Your task to perform on an android device: See recent photos Image 0: 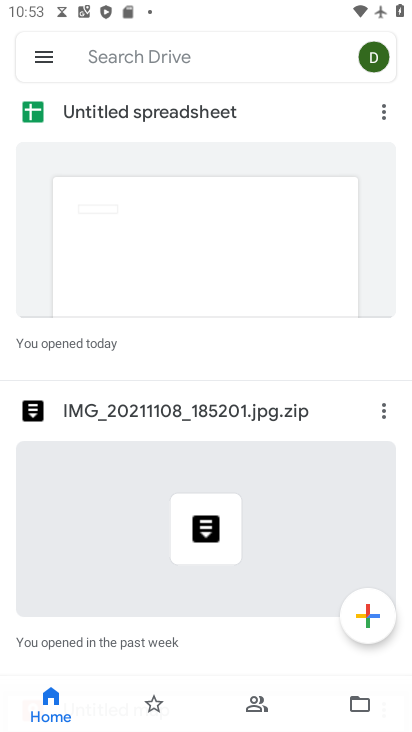
Step 0: press back button
Your task to perform on an android device: See recent photos Image 1: 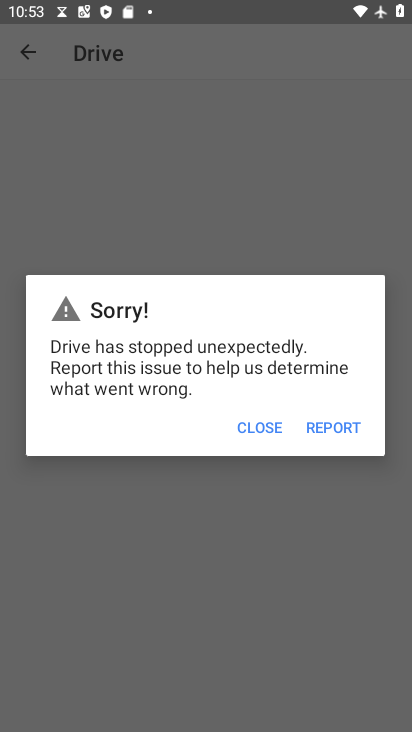
Step 1: press home button
Your task to perform on an android device: See recent photos Image 2: 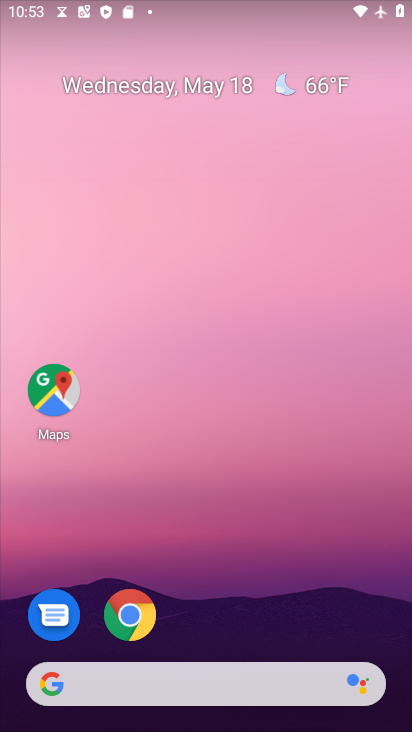
Step 2: drag from (249, 561) to (185, 41)
Your task to perform on an android device: See recent photos Image 3: 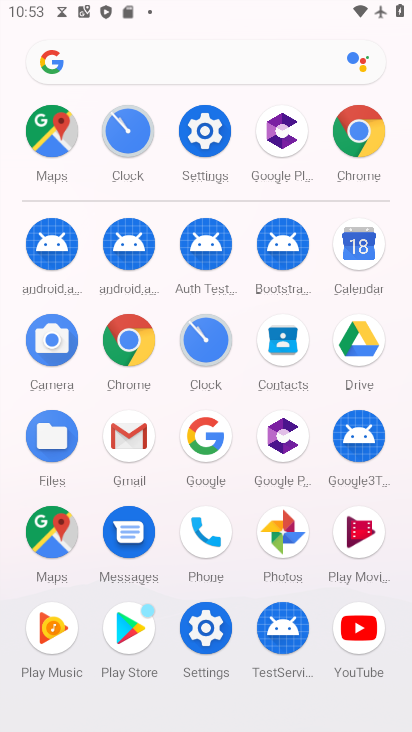
Step 3: click (283, 529)
Your task to perform on an android device: See recent photos Image 4: 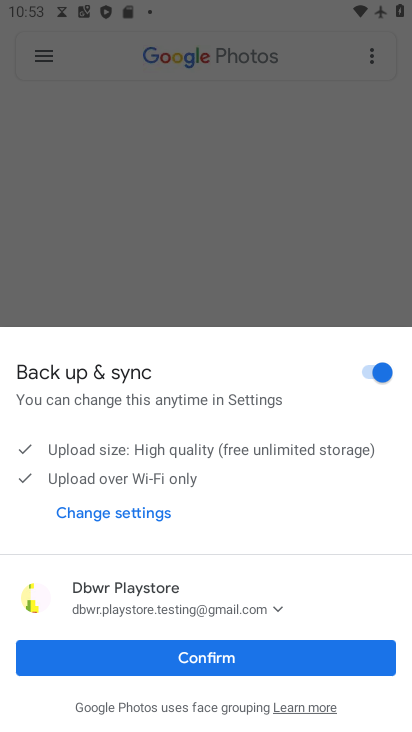
Step 4: click (236, 666)
Your task to perform on an android device: See recent photos Image 5: 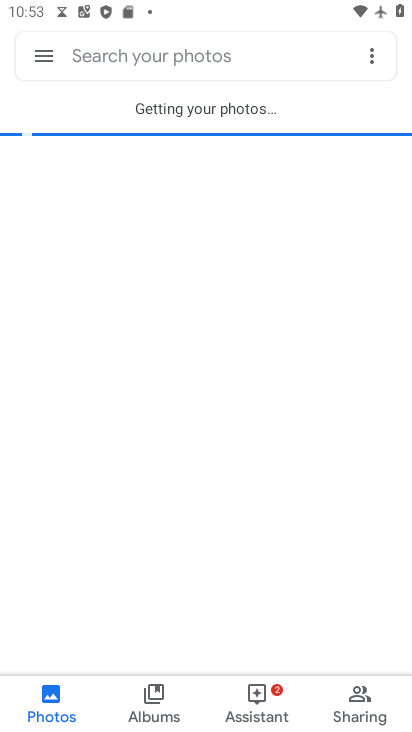
Step 5: click (254, 700)
Your task to perform on an android device: See recent photos Image 6: 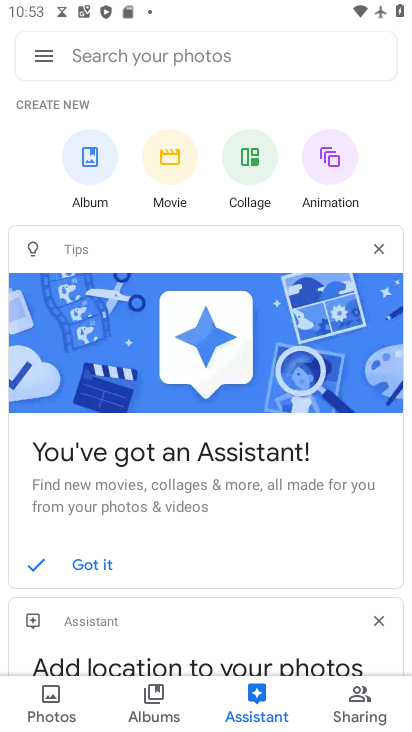
Step 6: click (72, 704)
Your task to perform on an android device: See recent photos Image 7: 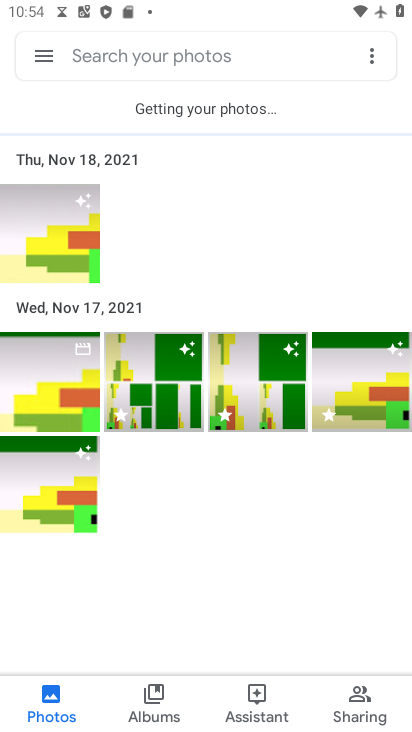
Step 7: task complete